Your task to perform on an android device: move a message to another label in the gmail app Image 0: 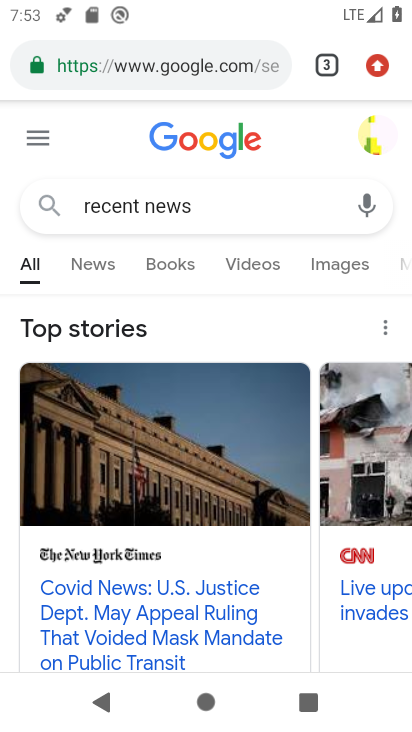
Step 0: press home button
Your task to perform on an android device: move a message to another label in the gmail app Image 1: 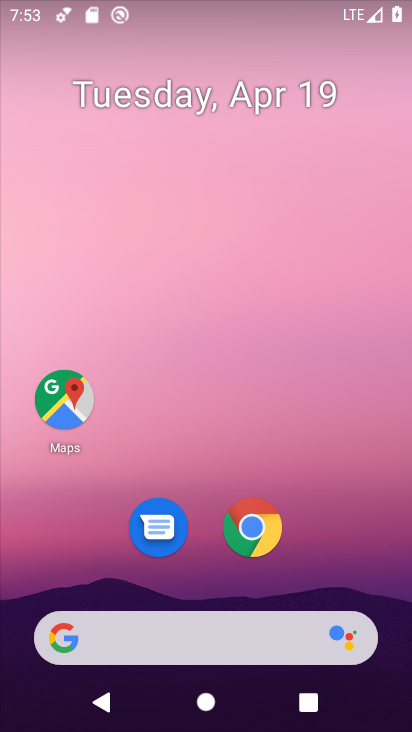
Step 1: drag from (352, 549) to (363, 88)
Your task to perform on an android device: move a message to another label in the gmail app Image 2: 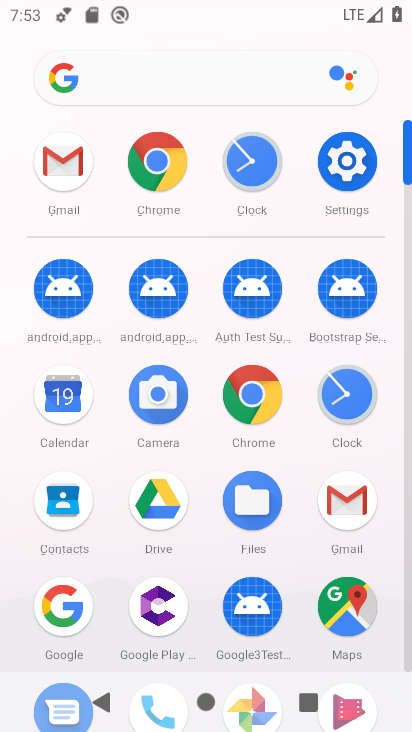
Step 2: click (340, 511)
Your task to perform on an android device: move a message to another label in the gmail app Image 3: 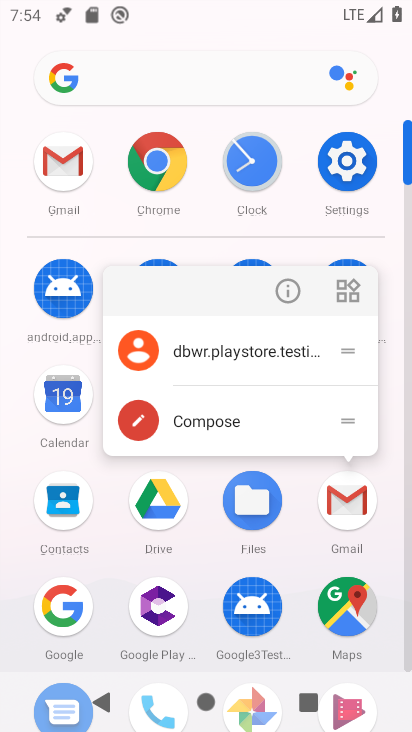
Step 3: click (327, 505)
Your task to perform on an android device: move a message to another label in the gmail app Image 4: 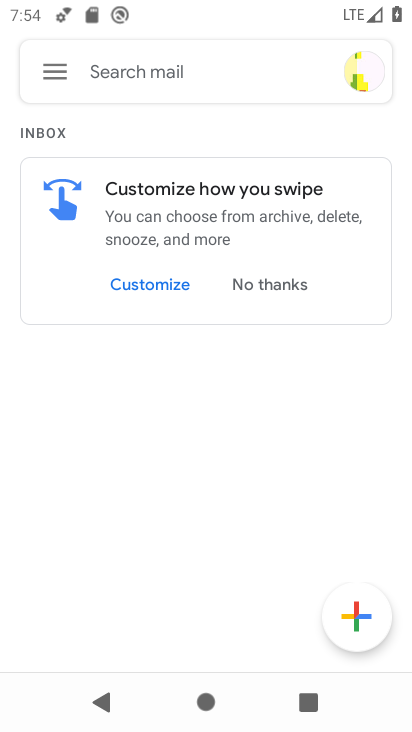
Step 4: click (71, 64)
Your task to perform on an android device: move a message to another label in the gmail app Image 5: 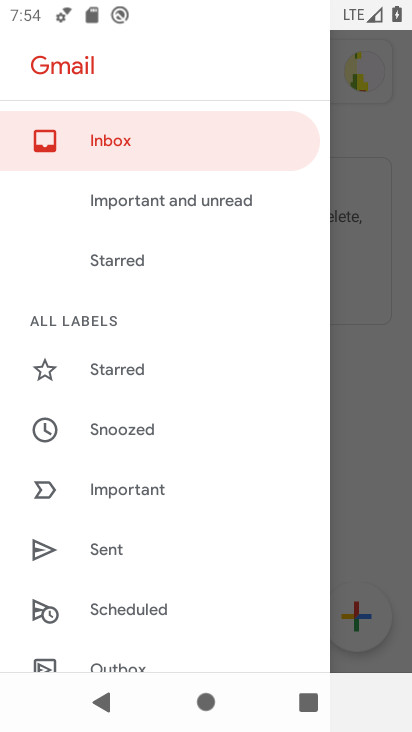
Step 5: drag from (177, 635) to (216, 212)
Your task to perform on an android device: move a message to another label in the gmail app Image 6: 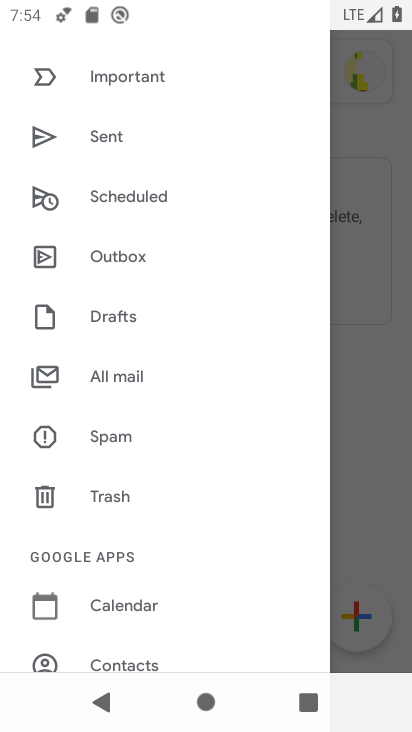
Step 6: click (144, 388)
Your task to perform on an android device: move a message to another label in the gmail app Image 7: 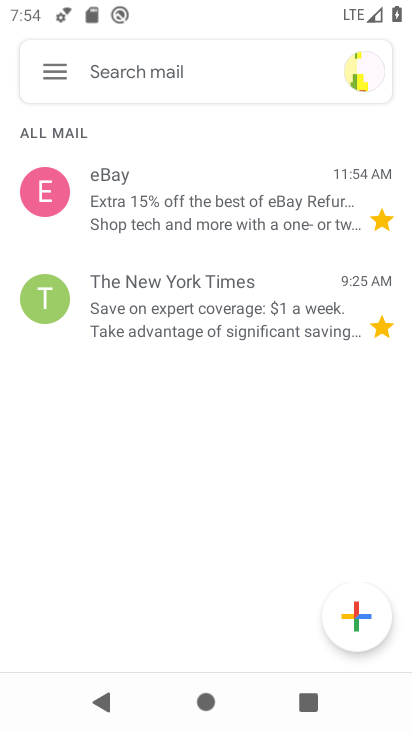
Step 7: click (197, 211)
Your task to perform on an android device: move a message to another label in the gmail app Image 8: 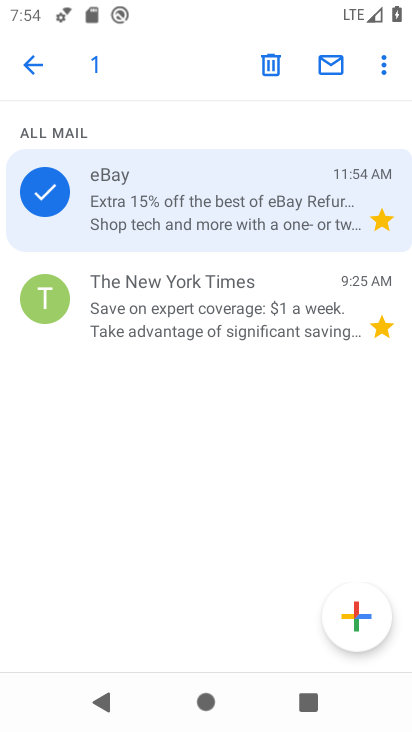
Step 8: click (385, 76)
Your task to perform on an android device: move a message to another label in the gmail app Image 9: 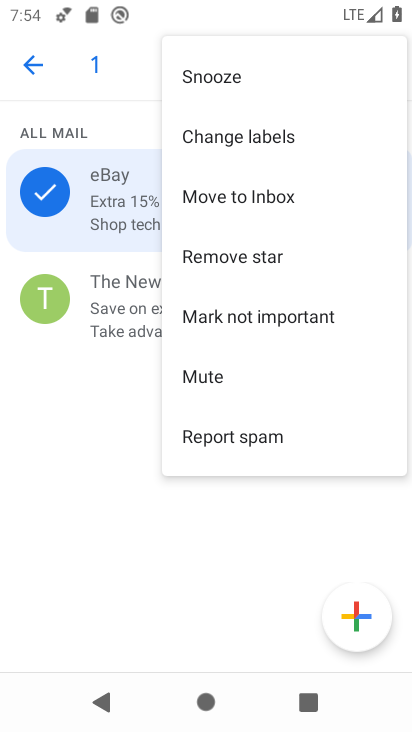
Step 9: click (212, 82)
Your task to perform on an android device: move a message to another label in the gmail app Image 10: 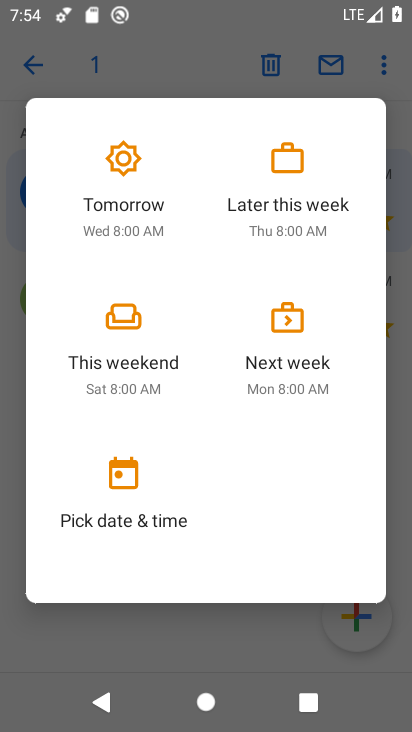
Step 10: click (140, 630)
Your task to perform on an android device: move a message to another label in the gmail app Image 11: 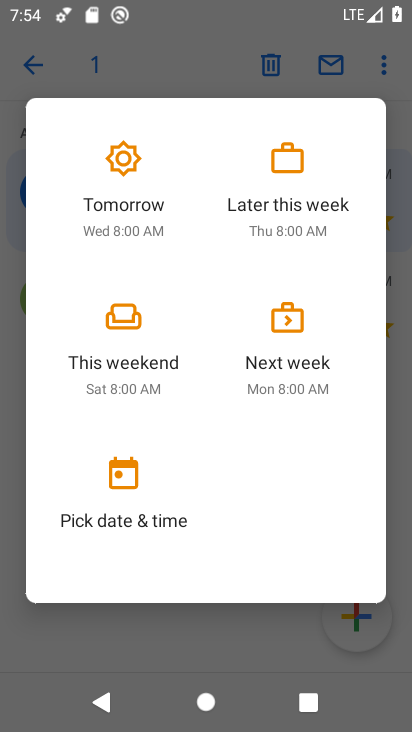
Step 11: click (110, 178)
Your task to perform on an android device: move a message to another label in the gmail app Image 12: 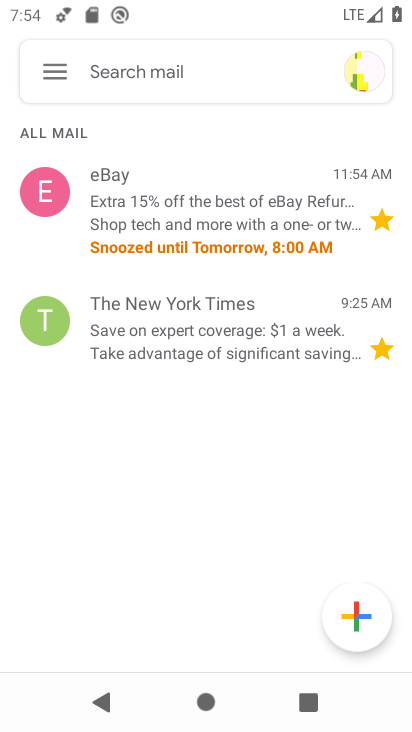
Step 12: task complete